Your task to perform on an android device: turn on priority inbox in the gmail app Image 0: 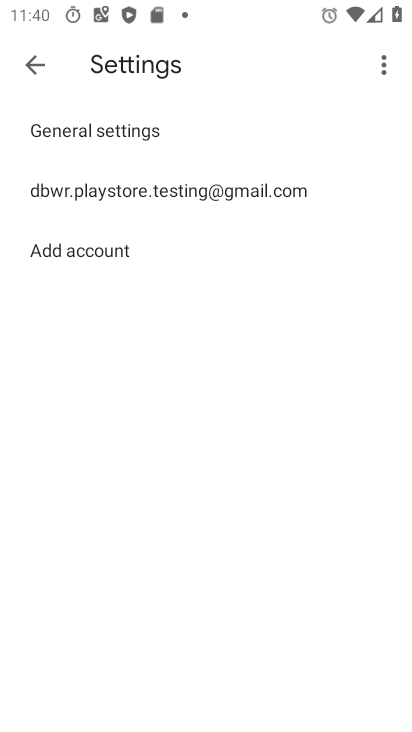
Step 0: click (122, 187)
Your task to perform on an android device: turn on priority inbox in the gmail app Image 1: 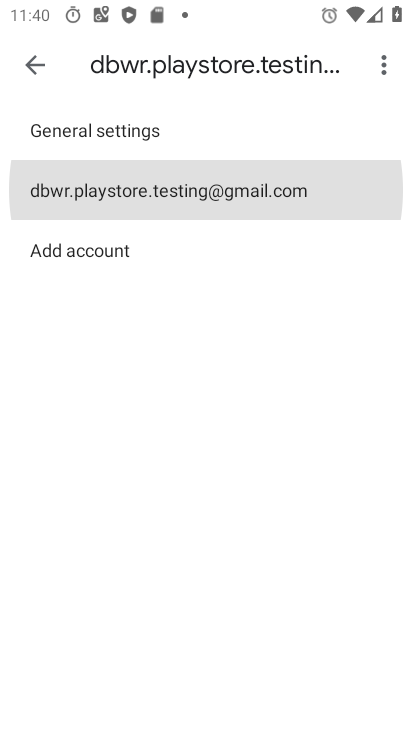
Step 1: click (122, 187)
Your task to perform on an android device: turn on priority inbox in the gmail app Image 2: 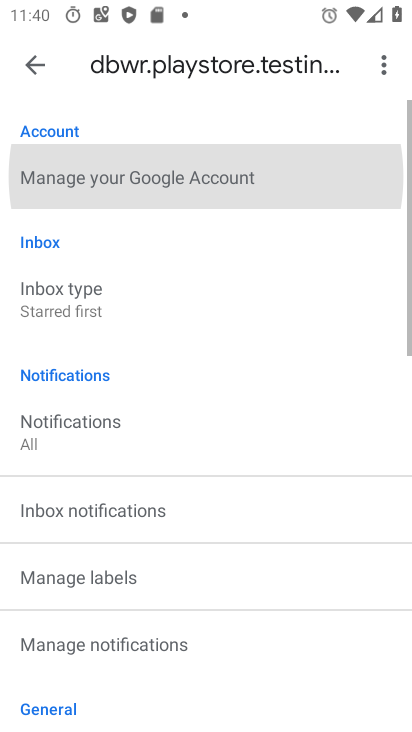
Step 2: click (123, 187)
Your task to perform on an android device: turn on priority inbox in the gmail app Image 3: 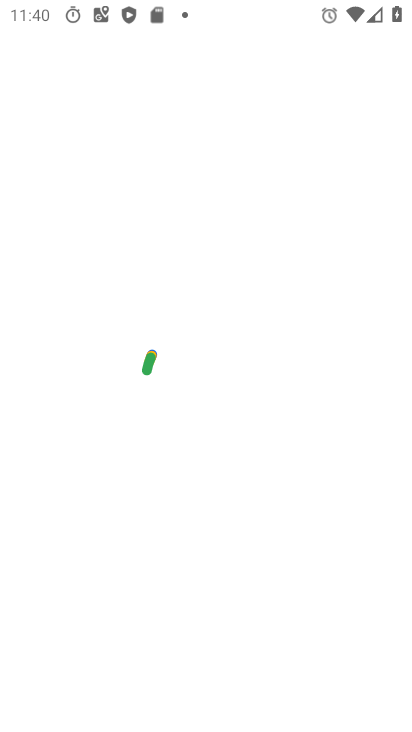
Step 3: press back button
Your task to perform on an android device: turn on priority inbox in the gmail app Image 4: 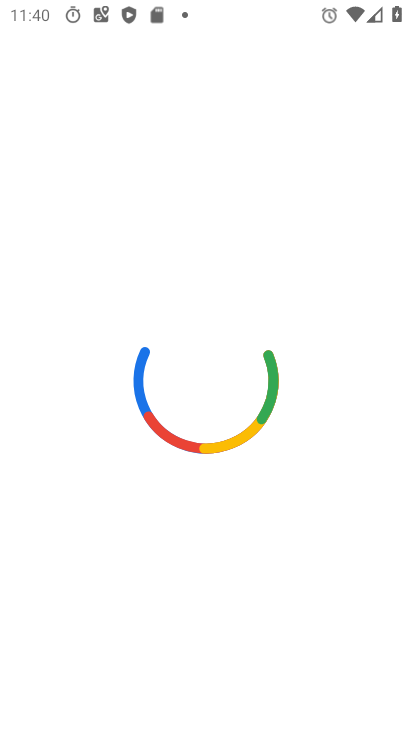
Step 4: press back button
Your task to perform on an android device: turn on priority inbox in the gmail app Image 5: 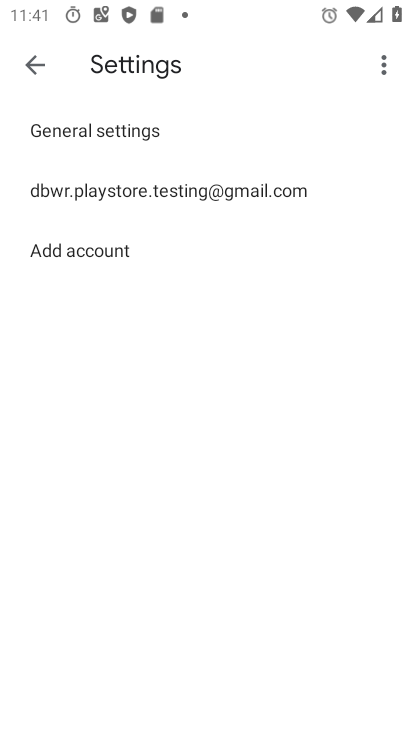
Step 5: click (126, 184)
Your task to perform on an android device: turn on priority inbox in the gmail app Image 6: 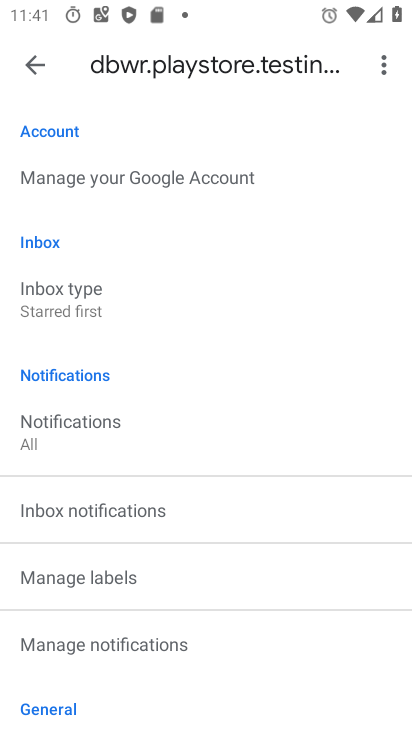
Step 6: click (72, 297)
Your task to perform on an android device: turn on priority inbox in the gmail app Image 7: 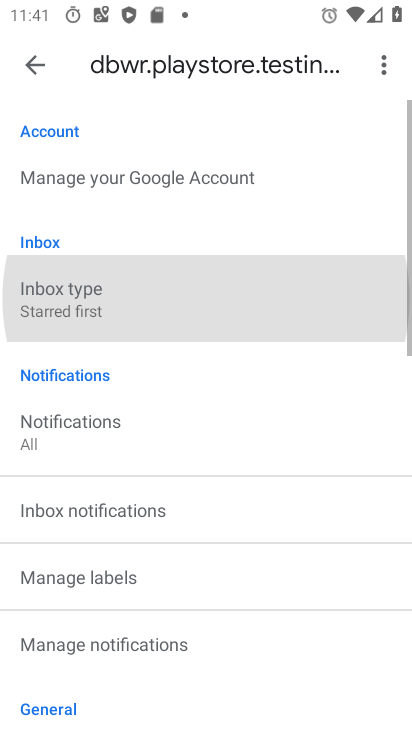
Step 7: click (72, 297)
Your task to perform on an android device: turn on priority inbox in the gmail app Image 8: 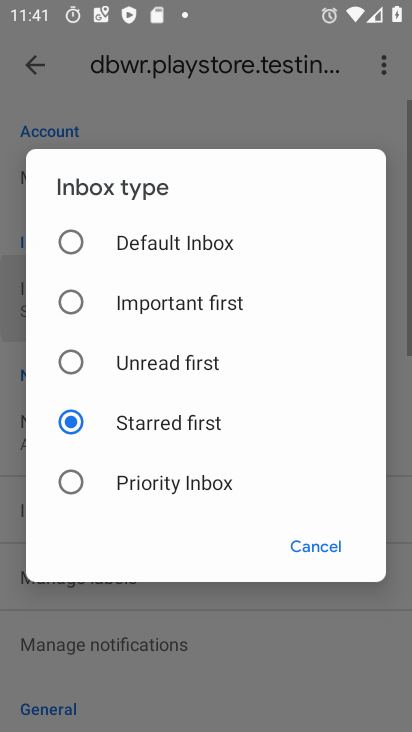
Step 8: click (72, 297)
Your task to perform on an android device: turn on priority inbox in the gmail app Image 9: 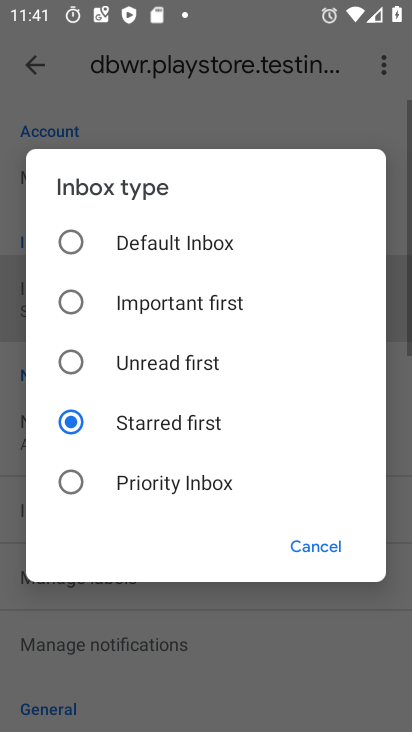
Step 9: click (73, 296)
Your task to perform on an android device: turn on priority inbox in the gmail app Image 10: 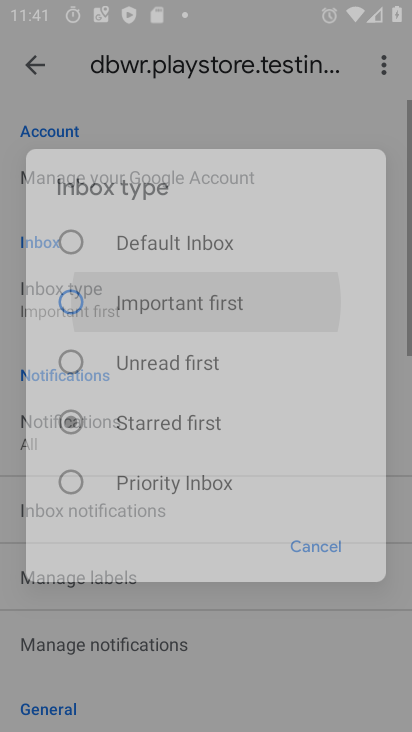
Step 10: click (73, 296)
Your task to perform on an android device: turn on priority inbox in the gmail app Image 11: 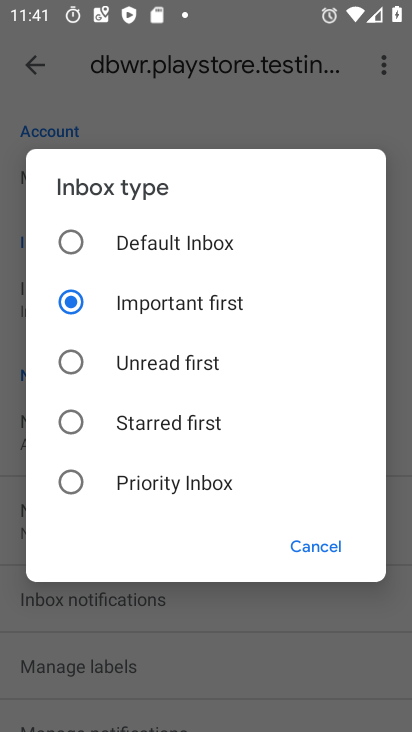
Step 11: click (76, 483)
Your task to perform on an android device: turn on priority inbox in the gmail app Image 12: 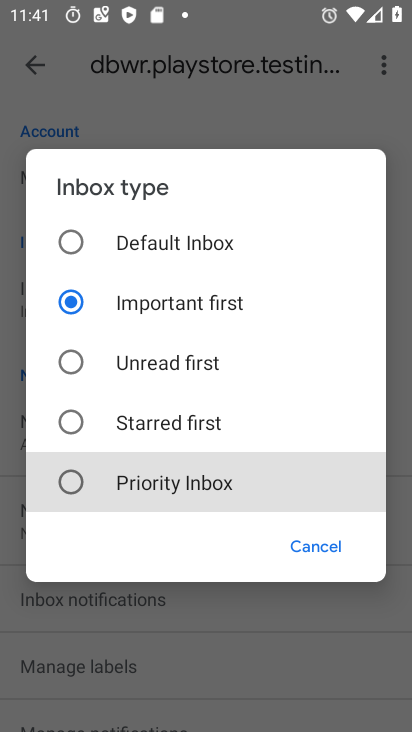
Step 12: click (76, 482)
Your task to perform on an android device: turn on priority inbox in the gmail app Image 13: 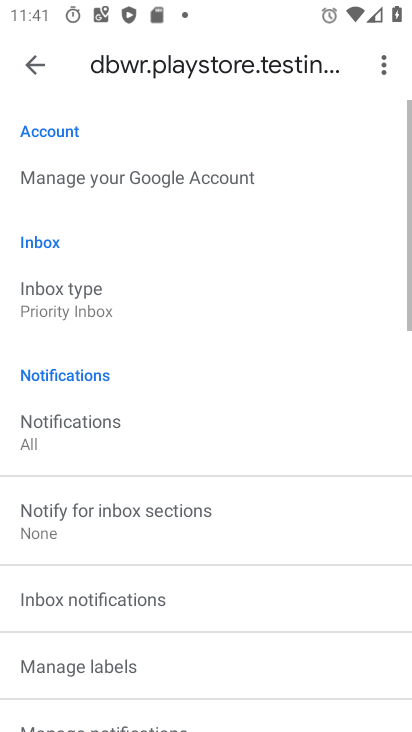
Step 13: click (63, 455)
Your task to perform on an android device: turn on priority inbox in the gmail app Image 14: 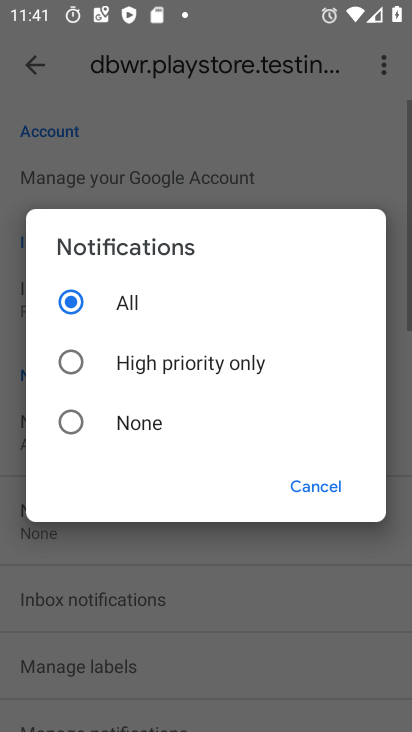
Step 14: click (305, 492)
Your task to perform on an android device: turn on priority inbox in the gmail app Image 15: 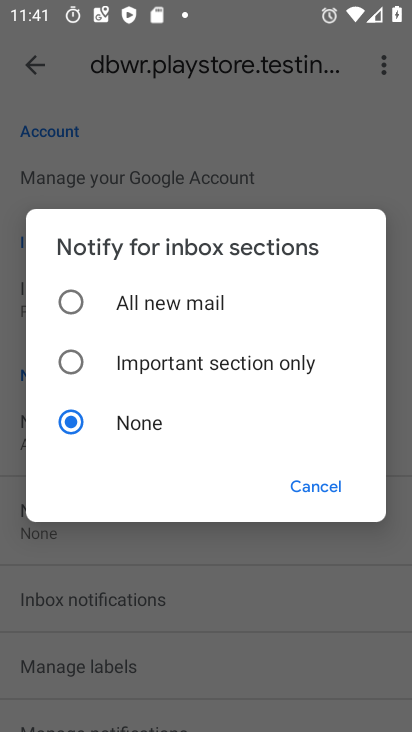
Step 15: task complete